Your task to perform on an android device: empty trash in google photos Image 0: 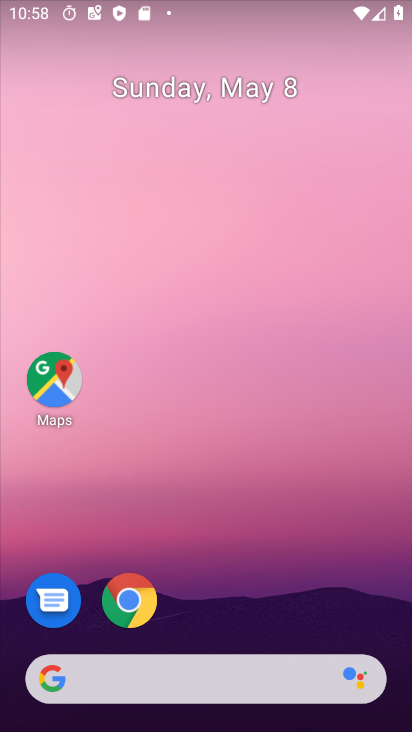
Step 0: drag from (70, 563) to (256, 188)
Your task to perform on an android device: empty trash in google photos Image 1: 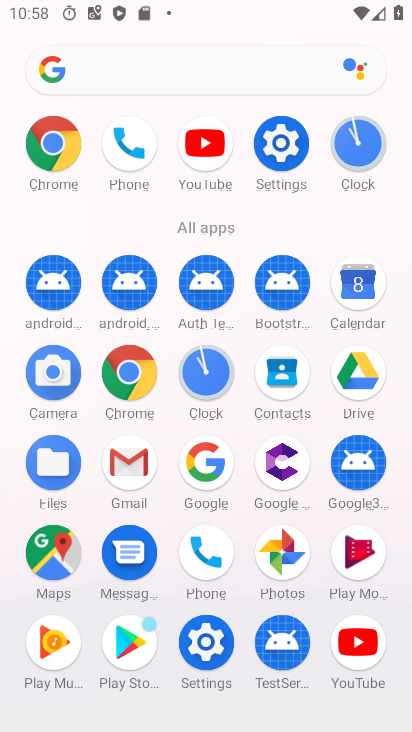
Step 1: click (293, 541)
Your task to perform on an android device: empty trash in google photos Image 2: 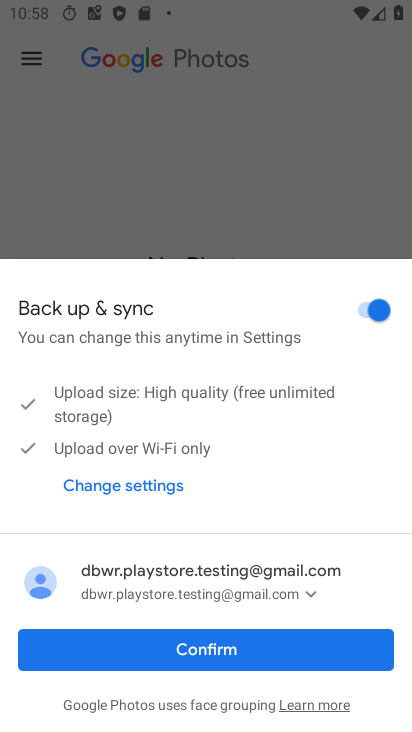
Step 2: click (292, 201)
Your task to perform on an android device: empty trash in google photos Image 3: 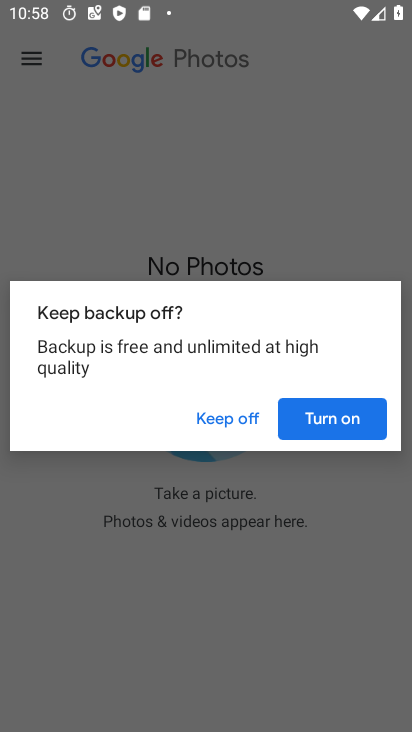
Step 3: click (260, 634)
Your task to perform on an android device: empty trash in google photos Image 4: 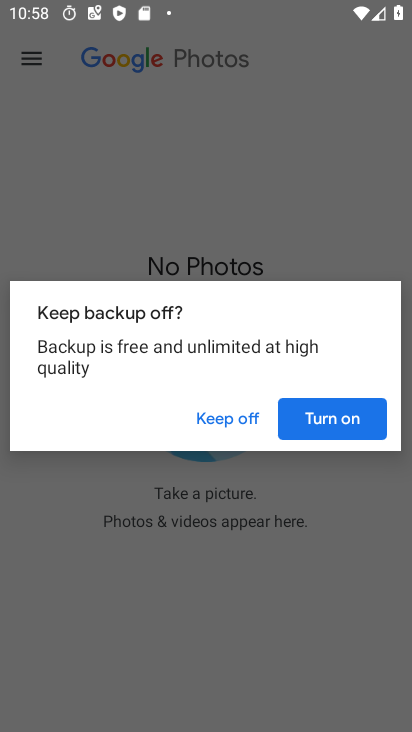
Step 4: click (337, 428)
Your task to perform on an android device: empty trash in google photos Image 5: 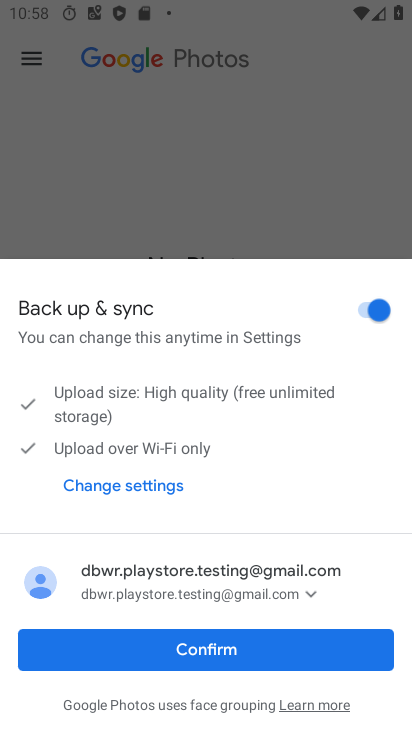
Step 5: click (187, 660)
Your task to perform on an android device: empty trash in google photos Image 6: 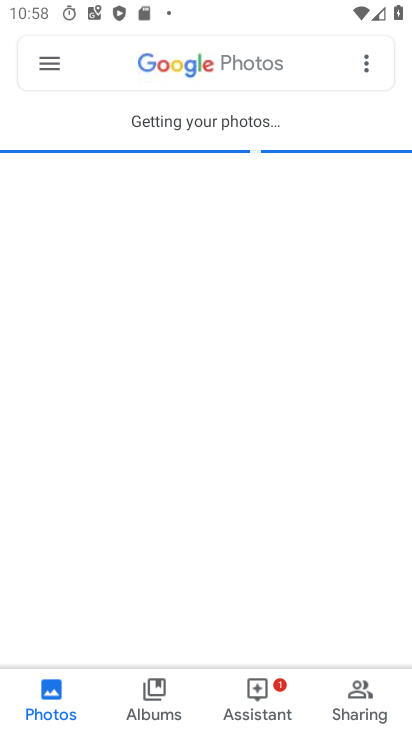
Step 6: click (41, 67)
Your task to perform on an android device: empty trash in google photos Image 7: 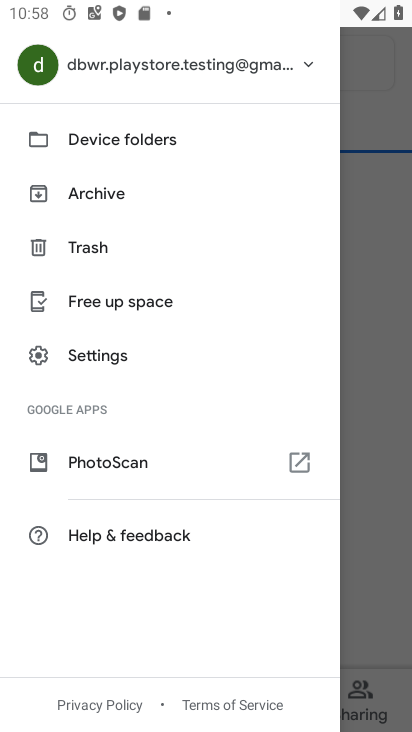
Step 7: click (102, 238)
Your task to perform on an android device: empty trash in google photos Image 8: 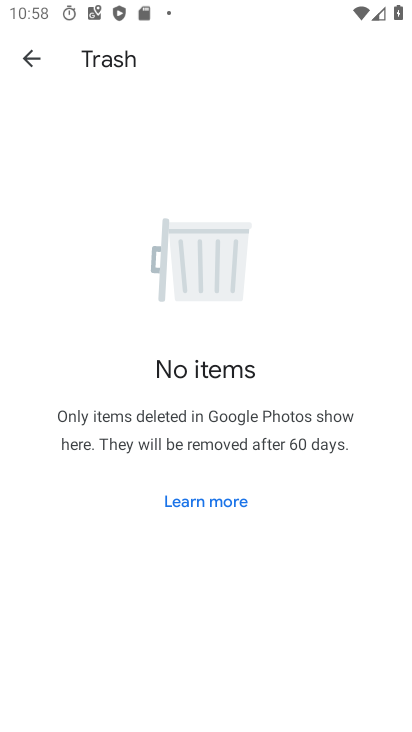
Step 8: task complete